Your task to perform on an android device: turn on the 24-hour format for clock Image 0: 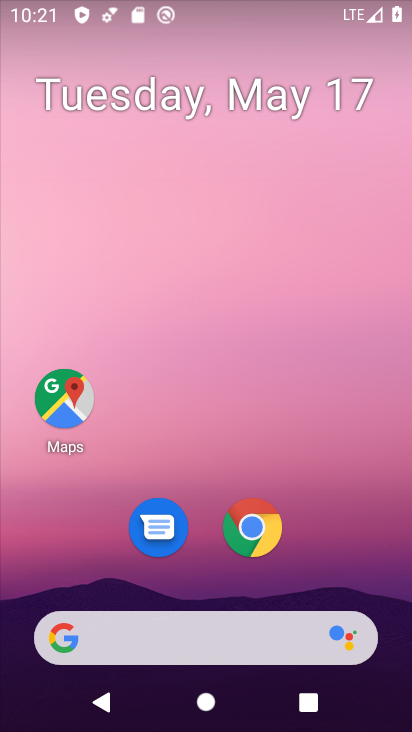
Step 0: drag from (95, 515) to (174, 184)
Your task to perform on an android device: turn on the 24-hour format for clock Image 1: 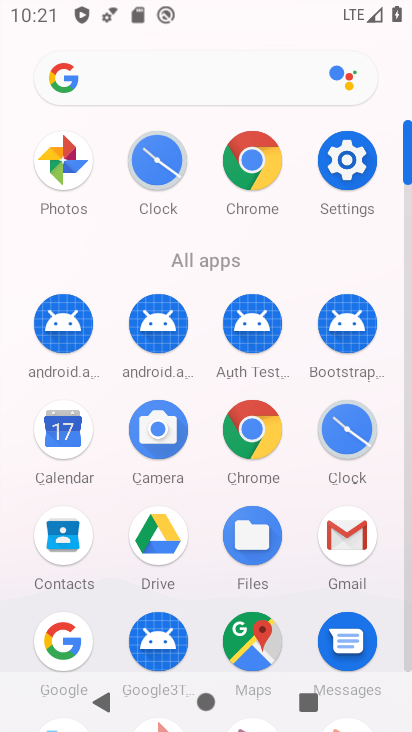
Step 1: click (343, 430)
Your task to perform on an android device: turn on the 24-hour format for clock Image 2: 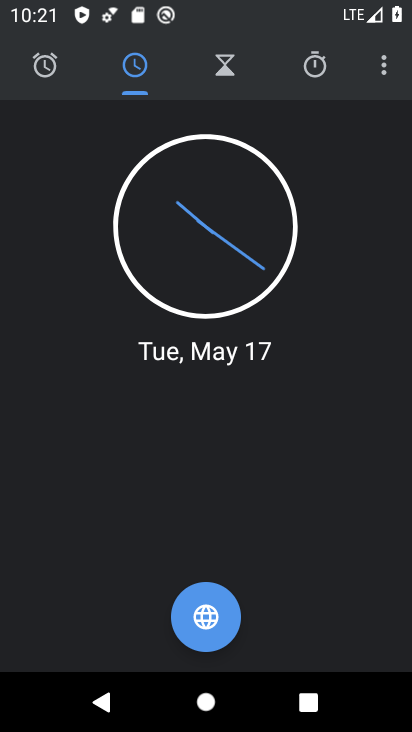
Step 2: click (389, 66)
Your task to perform on an android device: turn on the 24-hour format for clock Image 3: 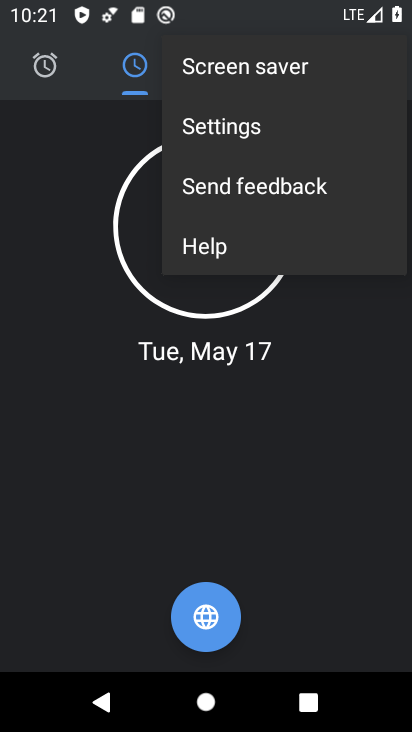
Step 3: click (337, 118)
Your task to perform on an android device: turn on the 24-hour format for clock Image 4: 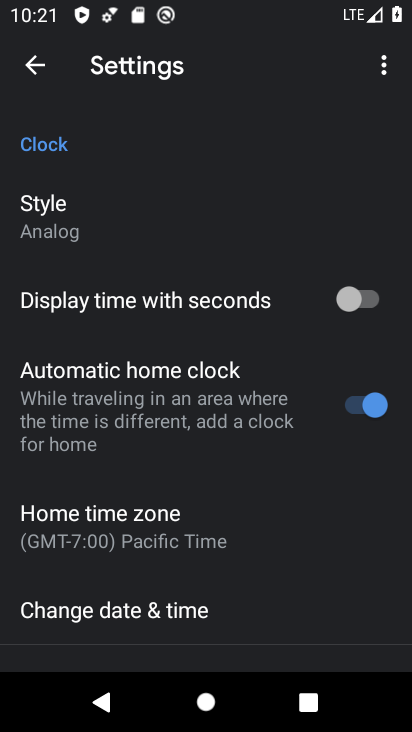
Step 4: click (233, 609)
Your task to perform on an android device: turn on the 24-hour format for clock Image 5: 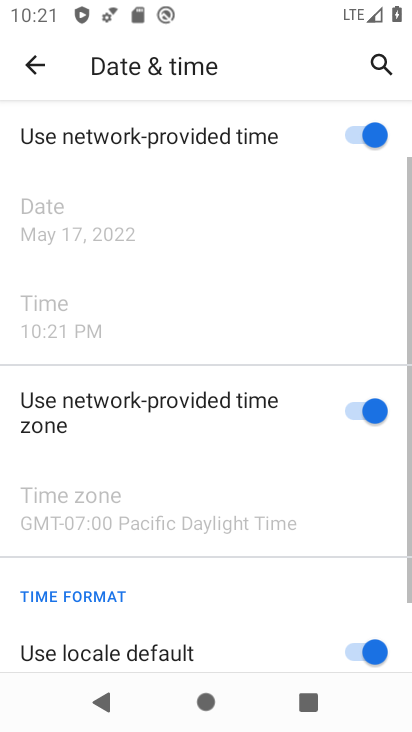
Step 5: drag from (159, 642) to (343, 22)
Your task to perform on an android device: turn on the 24-hour format for clock Image 6: 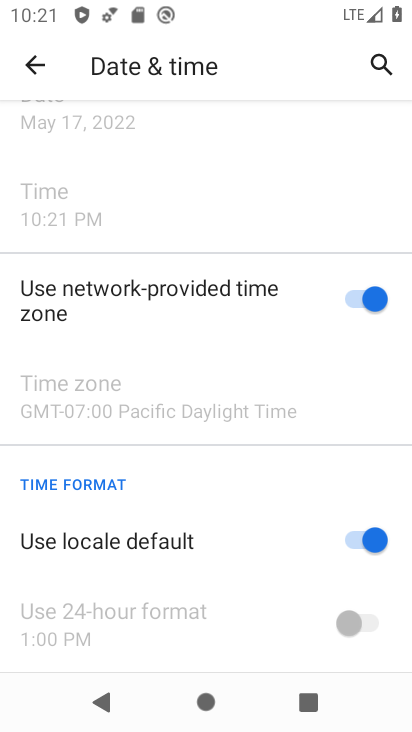
Step 6: drag from (162, 573) to (247, 211)
Your task to perform on an android device: turn on the 24-hour format for clock Image 7: 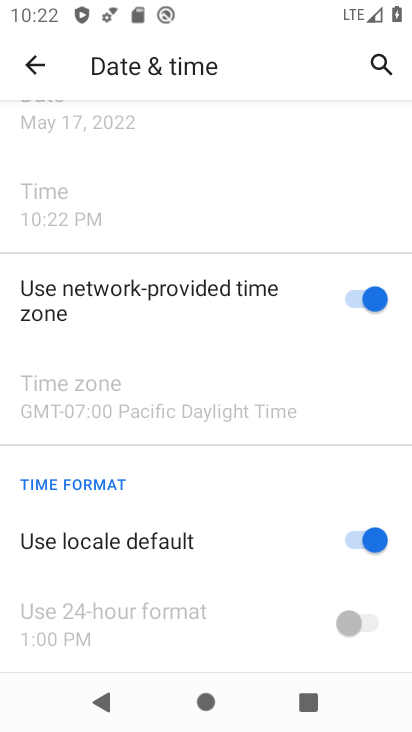
Step 7: click (341, 541)
Your task to perform on an android device: turn on the 24-hour format for clock Image 8: 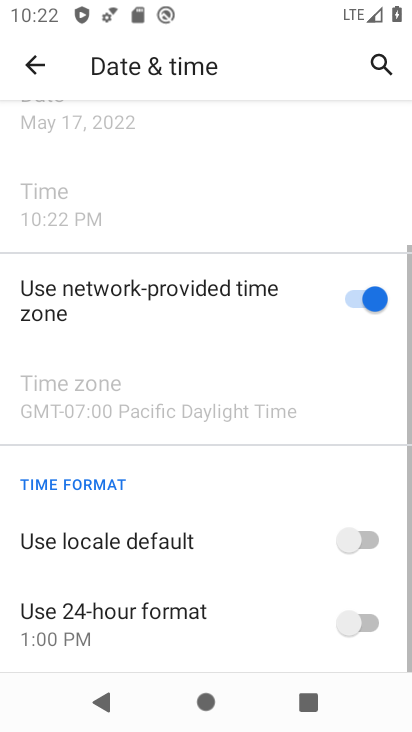
Step 8: click (380, 623)
Your task to perform on an android device: turn on the 24-hour format for clock Image 9: 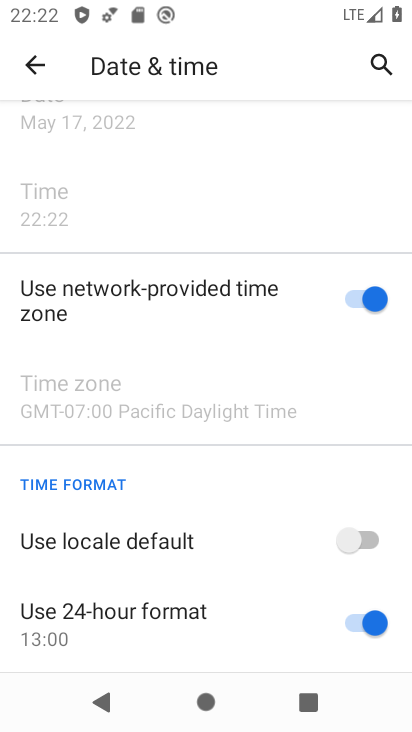
Step 9: task complete